Your task to perform on an android device: toggle sleep mode Image 0: 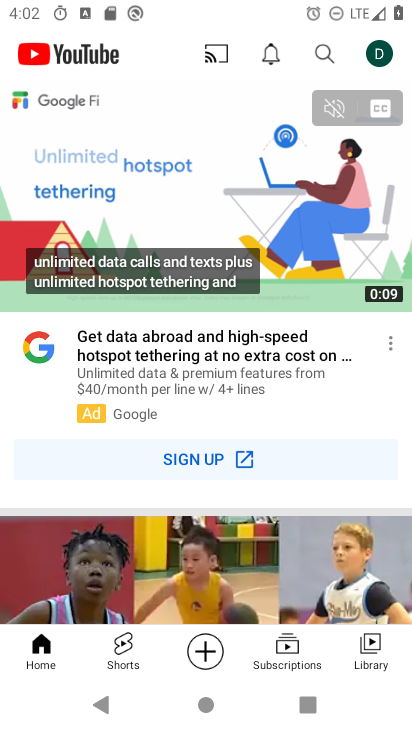
Step 0: task complete